Your task to perform on an android device: What's on my calendar today? Image 0: 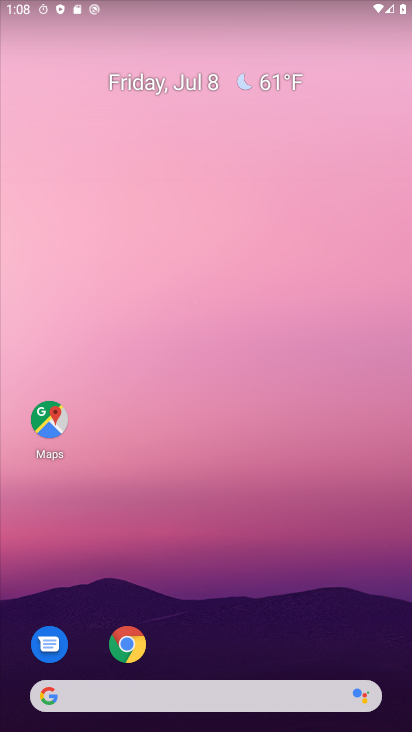
Step 0: drag from (168, 619) to (184, 12)
Your task to perform on an android device: What's on my calendar today? Image 1: 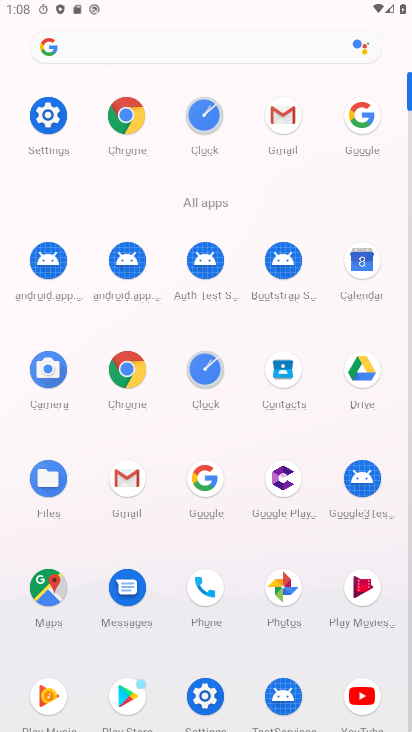
Step 1: click (357, 312)
Your task to perform on an android device: What's on my calendar today? Image 2: 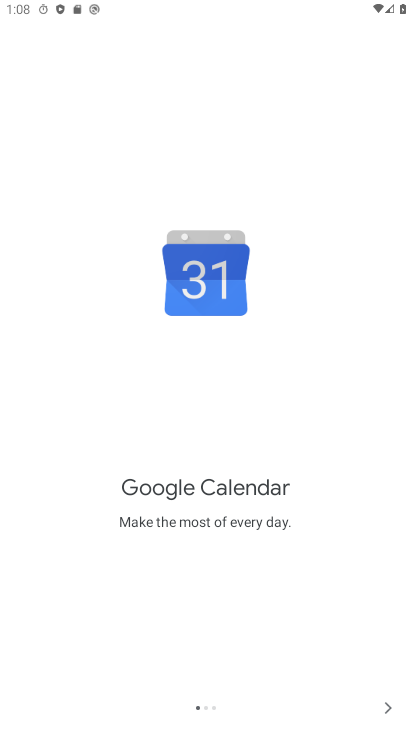
Step 2: click (382, 709)
Your task to perform on an android device: What's on my calendar today? Image 3: 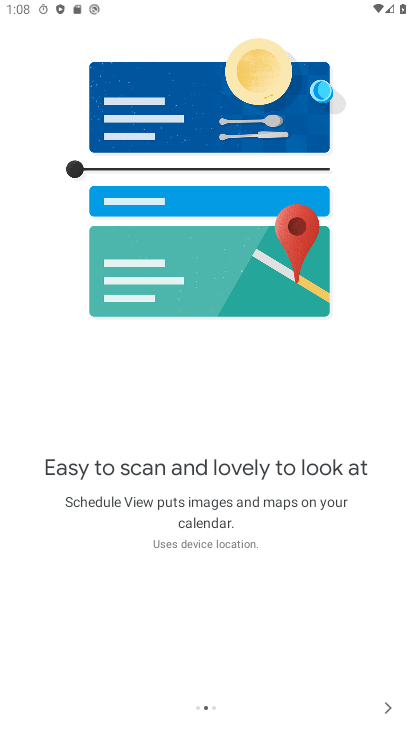
Step 3: click (382, 709)
Your task to perform on an android device: What's on my calendar today? Image 4: 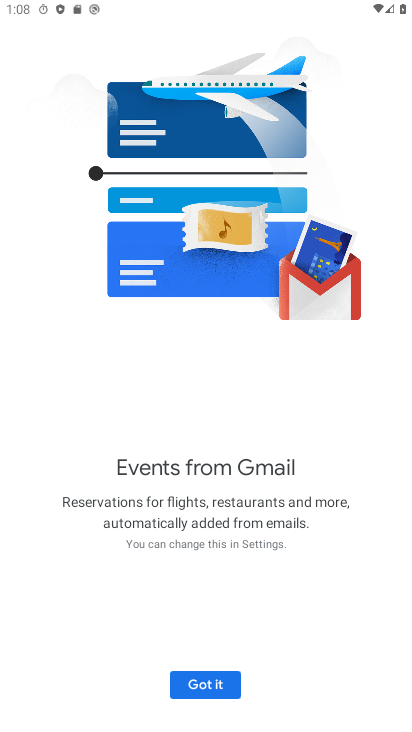
Step 4: click (382, 709)
Your task to perform on an android device: What's on my calendar today? Image 5: 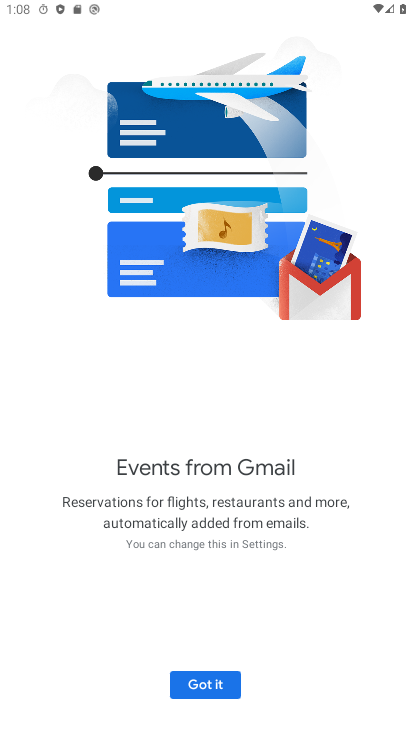
Step 5: click (221, 687)
Your task to perform on an android device: What's on my calendar today? Image 6: 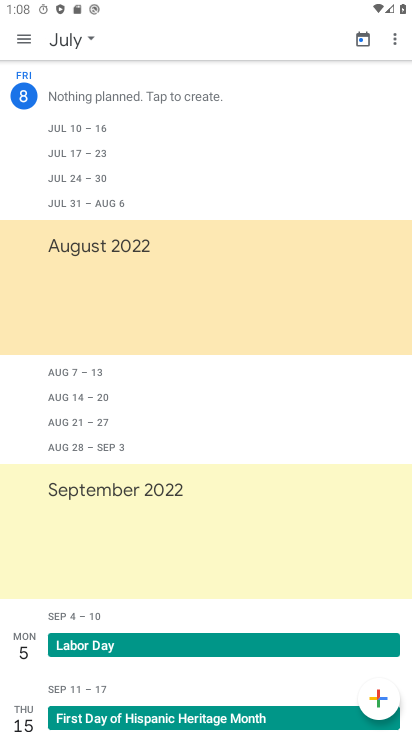
Step 6: task complete